Your task to perform on an android device: Set the phone to "Do not disturb". Image 0: 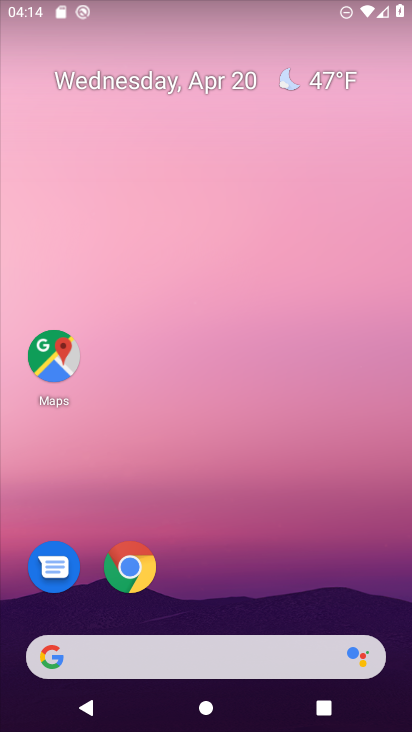
Step 0: drag from (191, 9) to (287, 582)
Your task to perform on an android device: Set the phone to "Do not disturb". Image 1: 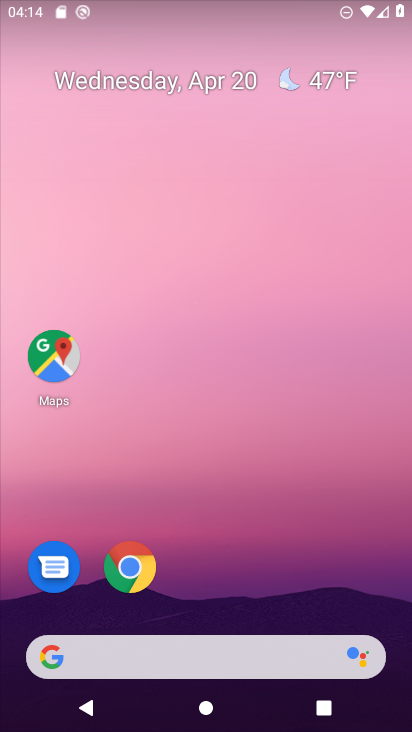
Step 1: task complete